Your task to perform on an android device: What is the recent news? Image 0: 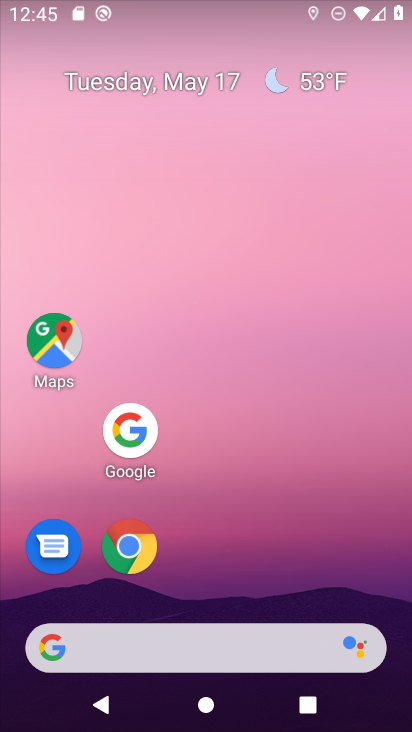
Step 0: click (134, 422)
Your task to perform on an android device: What is the recent news? Image 1: 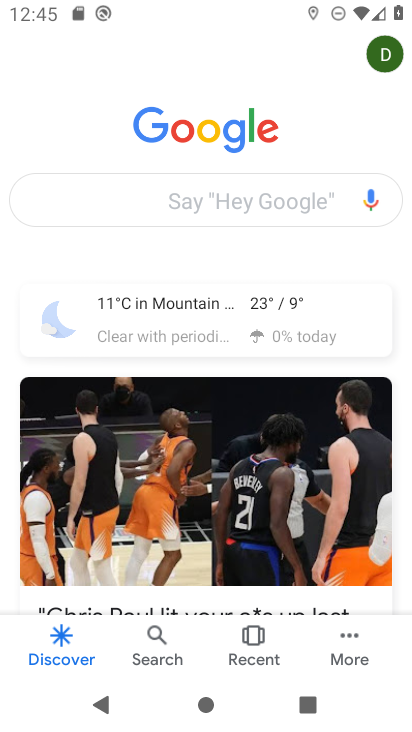
Step 1: click (138, 203)
Your task to perform on an android device: What is the recent news? Image 2: 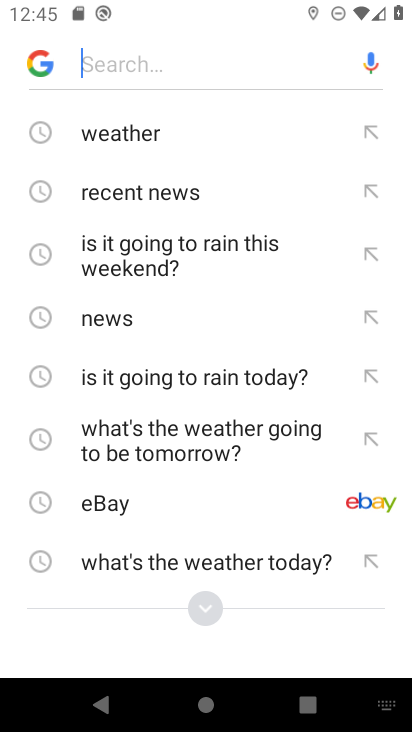
Step 2: click (141, 193)
Your task to perform on an android device: What is the recent news? Image 3: 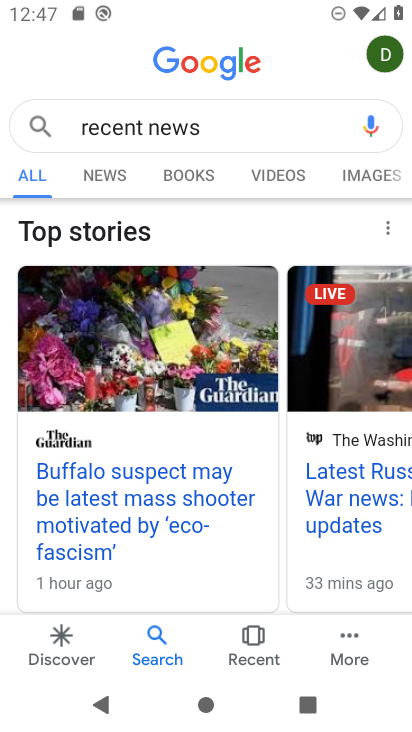
Step 3: task complete